Your task to perform on an android device: move a message to another label in the gmail app Image 0: 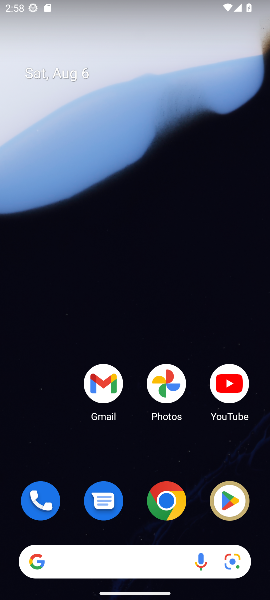
Step 0: drag from (143, 461) to (139, 243)
Your task to perform on an android device: move a message to another label in the gmail app Image 1: 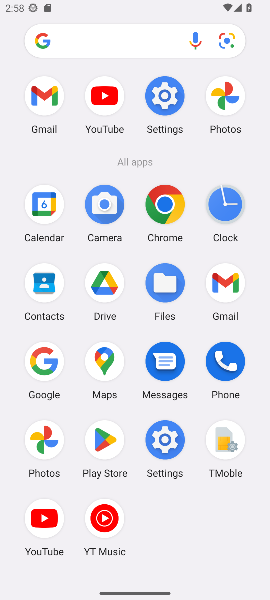
Step 1: click (225, 277)
Your task to perform on an android device: move a message to another label in the gmail app Image 2: 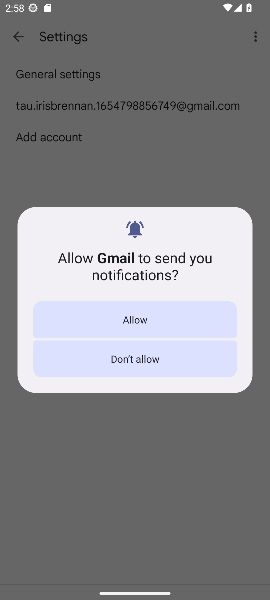
Step 2: click (133, 355)
Your task to perform on an android device: move a message to another label in the gmail app Image 3: 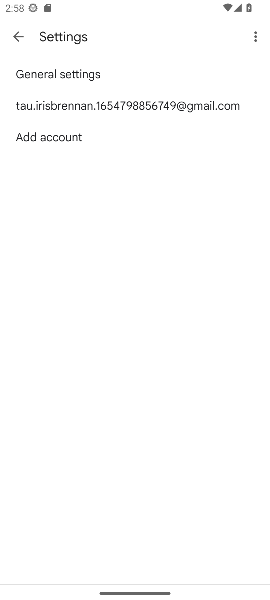
Step 3: click (19, 36)
Your task to perform on an android device: move a message to another label in the gmail app Image 4: 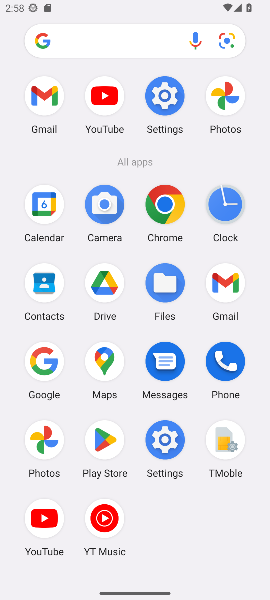
Step 4: click (226, 291)
Your task to perform on an android device: move a message to another label in the gmail app Image 5: 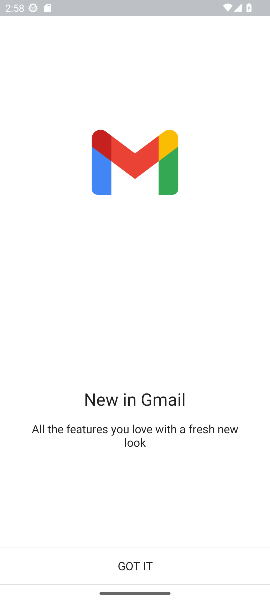
Step 5: click (144, 577)
Your task to perform on an android device: move a message to another label in the gmail app Image 6: 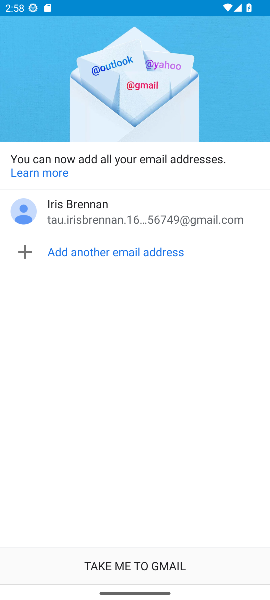
Step 6: click (150, 570)
Your task to perform on an android device: move a message to another label in the gmail app Image 7: 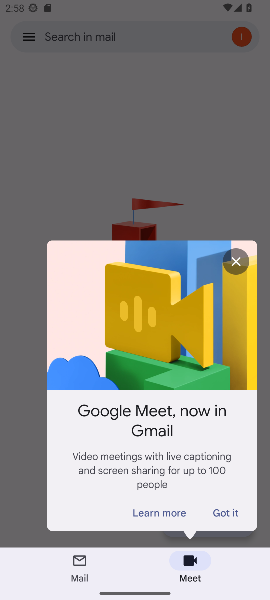
Step 7: click (74, 579)
Your task to perform on an android device: move a message to another label in the gmail app Image 8: 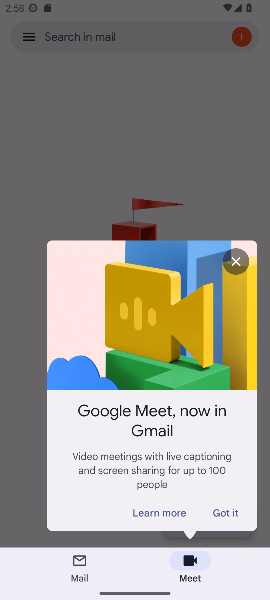
Step 8: click (239, 266)
Your task to perform on an android device: move a message to another label in the gmail app Image 9: 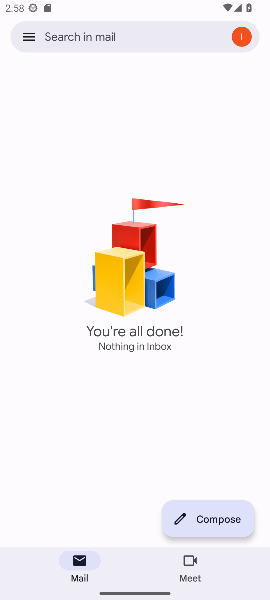
Step 9: click (70, 560)
Your task to perform on an android device: move a message to another label in the gmail app Image 10: 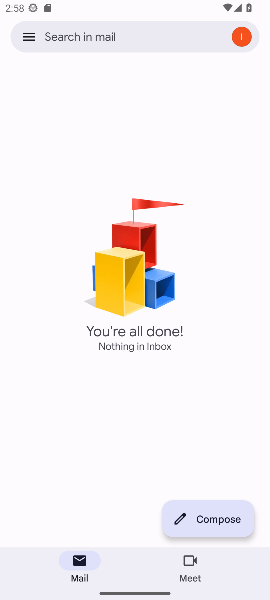
Step 10: click (70, 560)
Your task to perform on an android device: move a message to another label in the gmail app Image 11: 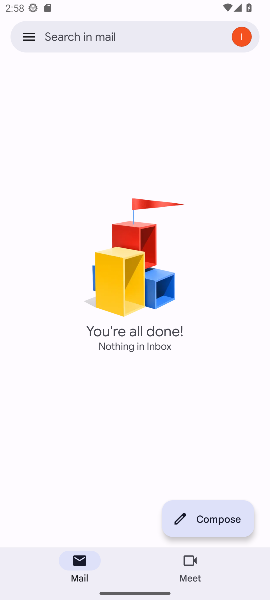
Step 11: click (70, 560)
Your task to perform on an android device: move a message to another label in the gmail app Image 12: 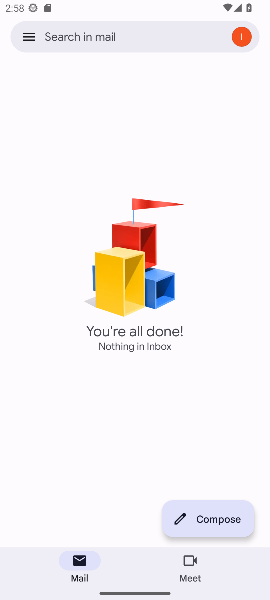
Step 12: click (70, 560)
Your task to perform on an android device: move a message to another label in the gmail app Image 13: 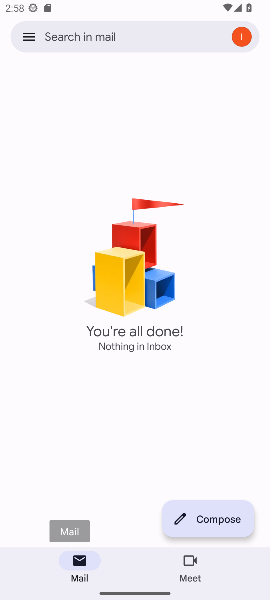
Step 13: click (70, 560)
Your task to perform on an android device: move a message to another label in the gmail app Image 14: 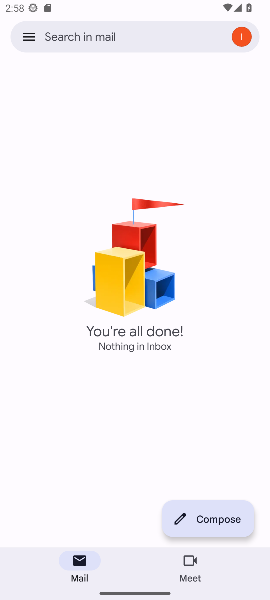
Step 14: click (70, 560)
Your task to perform on an android device: move a message to another label in the gmail app Image 15: 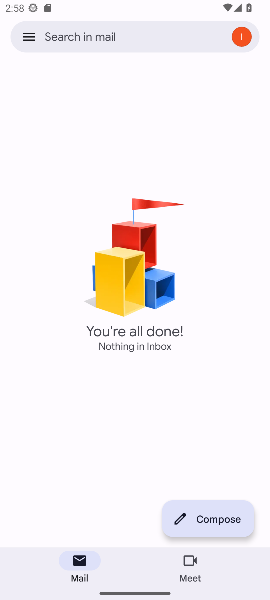
Step 15: click (70, 560)
Your task to perform on an android device: move a message to another label in the gmail app Image 16: 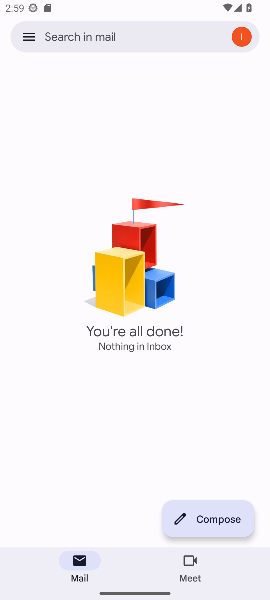
Step 16: click (34, 25)
Your task to perform on an android device: move a message to another label in the gmail app Image 17: 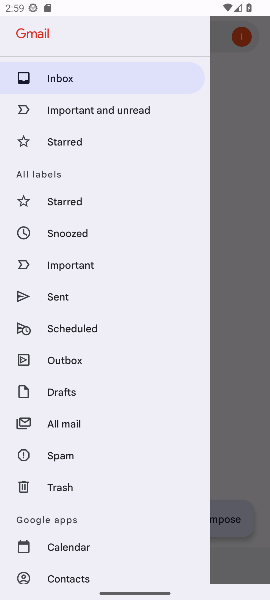
Step 17: click (92, 425)
Your task to perform on an android device: move a message to another label in the gmail app Image 18: 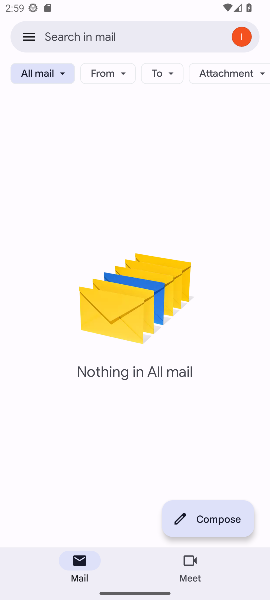
Step 18: task complete